Your task to perform on an android device: Open Android settings Image 0: 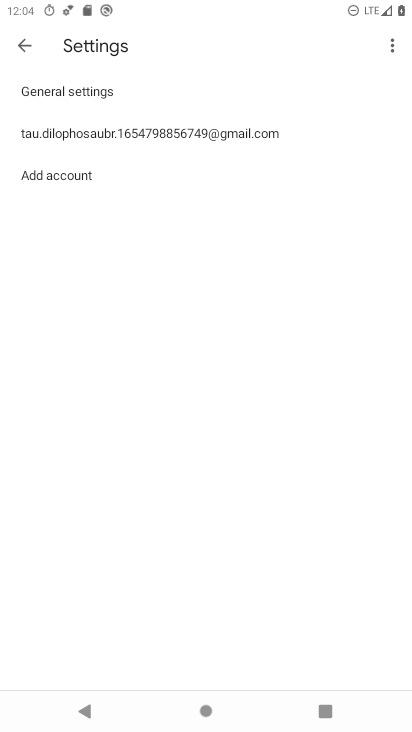
Step 0: press home button
Your task to perform on an android device: Open Android settings Image 1: 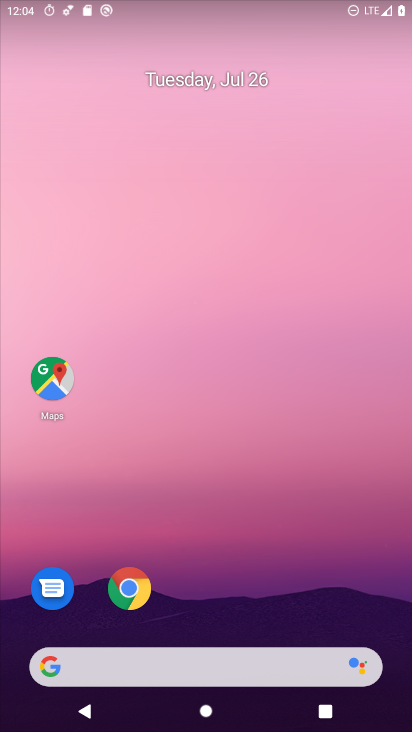
Step 1: drag from (33, 546) to (172, 104)
Your task to perform on an android device: Open Android settings Image 2: 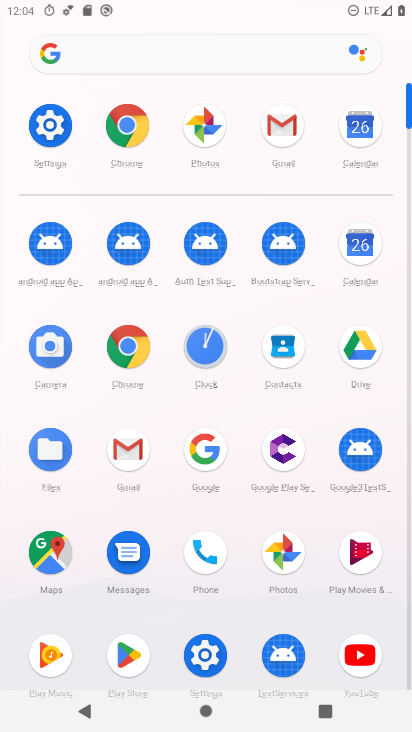
Step 2: click (54, 127)
Your task to perform on an android device: Open Android settings Image 3: 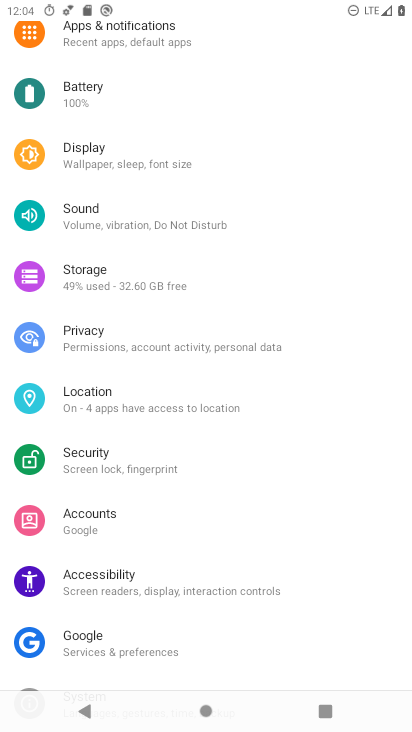
Step 3: drag from (14, 714) to (205, 129)
Your task to perform on an android device: Open Android settings Image 4: 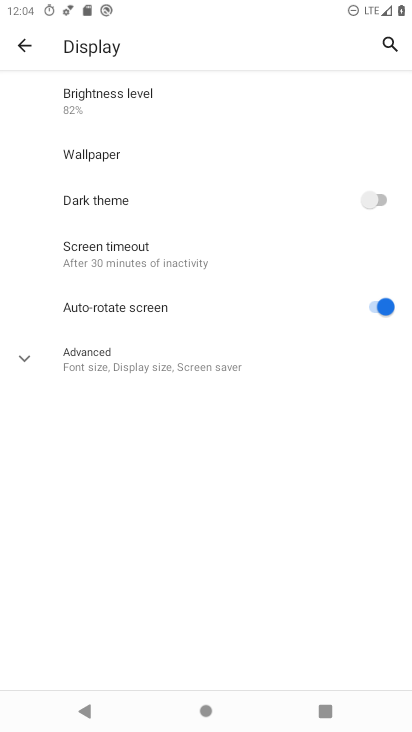
Step 4: press back button
Your task to perform on an android device: Open Android settings Image 5: 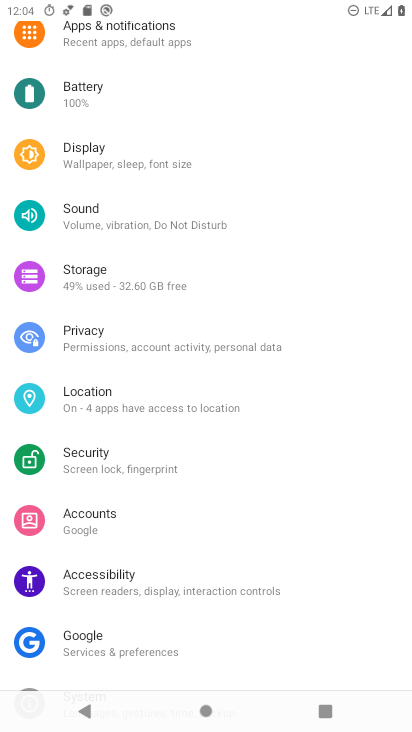
Step 5: drag from (28, 470) to (163, 211)
Your task to perform on an android device: Open Android settings Image 6: 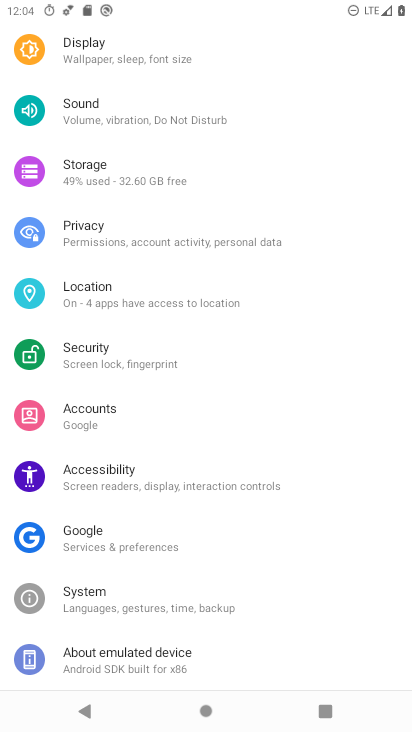
Step 6: click (193, 659)
Your task to perform on an android device: Open Android settings Image 7: 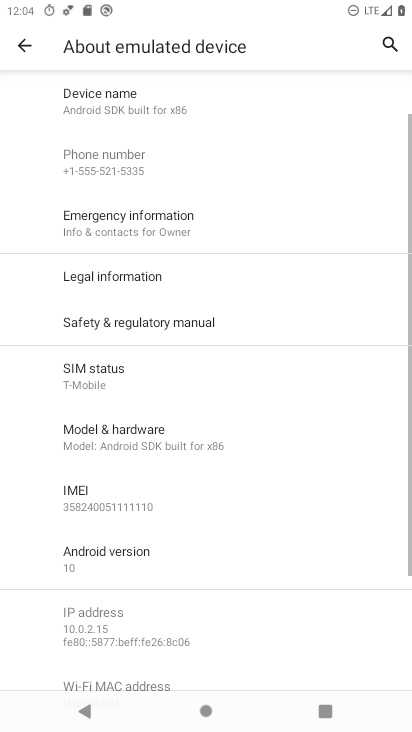
Step 7: task complete